Your task to perform on an android device: allow notifications from all sites in the chrome app Image 0: 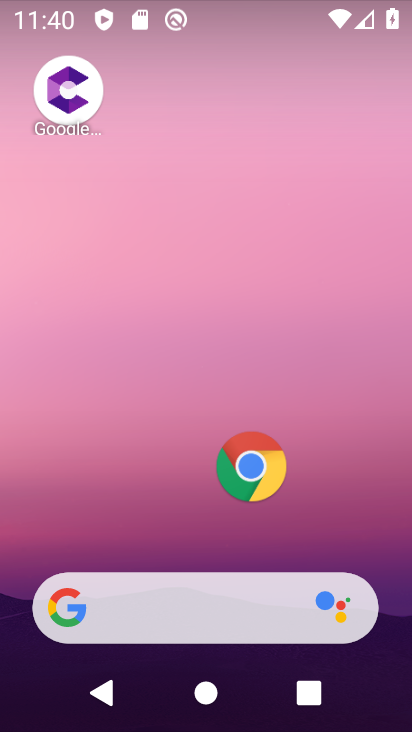
Step 0: click (235, 472)
Your task to perform on an android device: allow notifications from all sites in the chrome app Image 1: 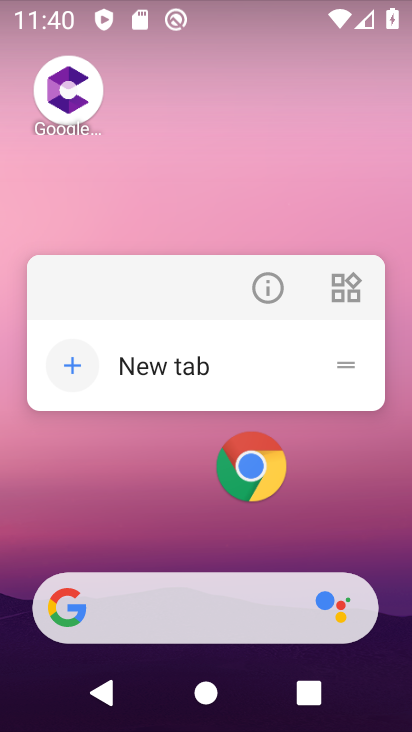
Step 1: click (256, 451)
Your task to perform on an android device: allow notifications from all sites in the chrome app Image 2: 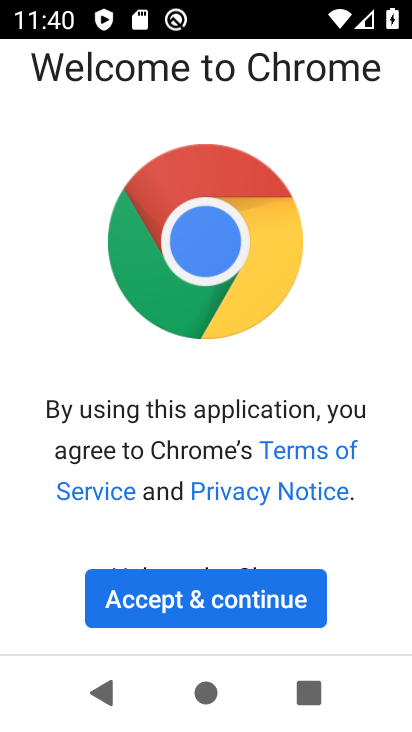
Step 2: click (232, 588)
Your task to perform on an android device: allow notifications from all sites in the chrome app Image 3: 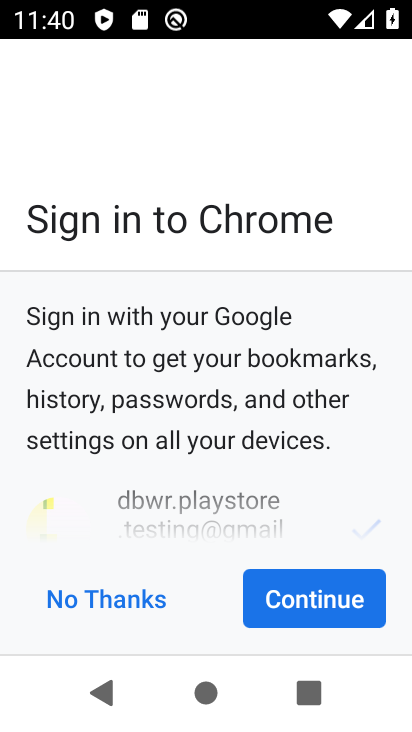
Step 3: click (264, 590)
Your task to perform on an android device: allow notifications from all sites in the chrome app Image 4: 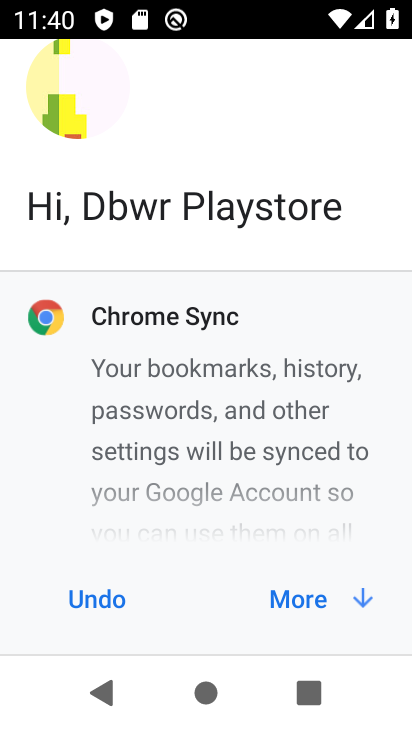
Step 4: click (264, 590)
Your task to perform on an android device: allow notifications from all sites in the chrome app Image 5: 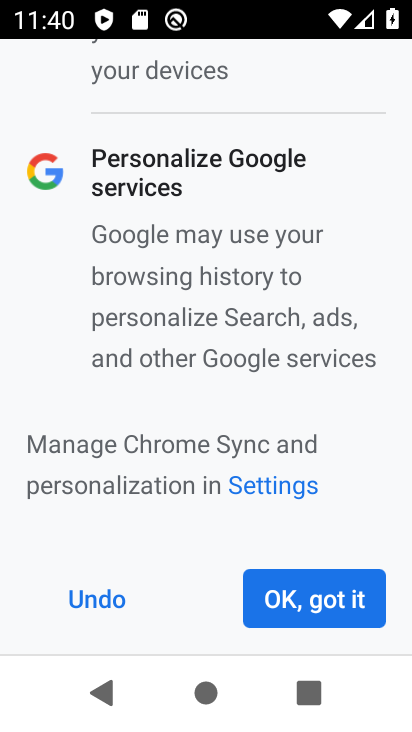
Step 5: click (264, 590)
Your task to perform on an android device: allow notifications from all sites in the chrome app Image 6: 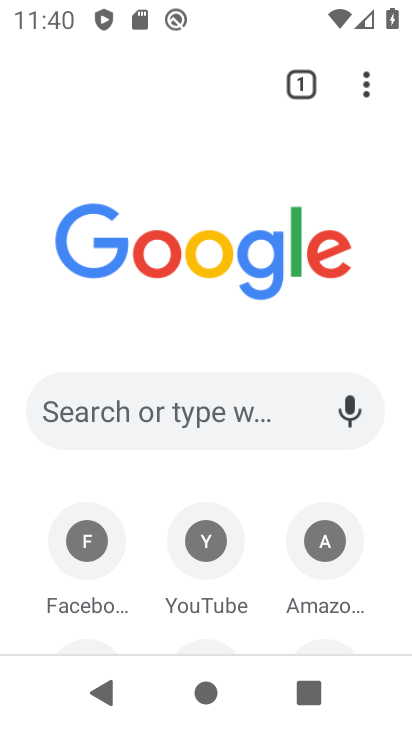
Step 6: click (364, 85)
Your task to perform on an android device: allow notifications from all sites in the chrome app Image 7: 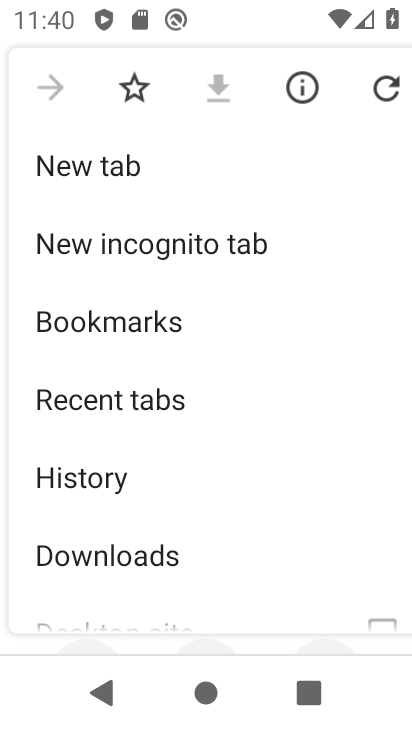
Step 7: drag from (186, 561) to (202, 232)
Your task to perform on an android device: allow notifications from all sites in the chrome app Image 8: 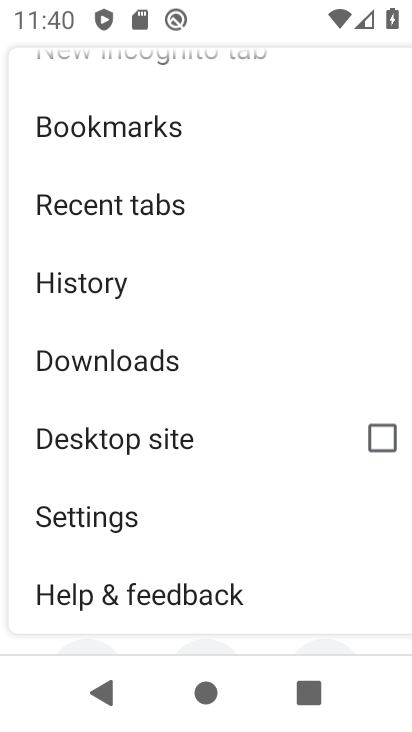
Step 8: click (124, 522)
Your task to perform on an android device: allow notifications from all sites in the chrome app Image 9: 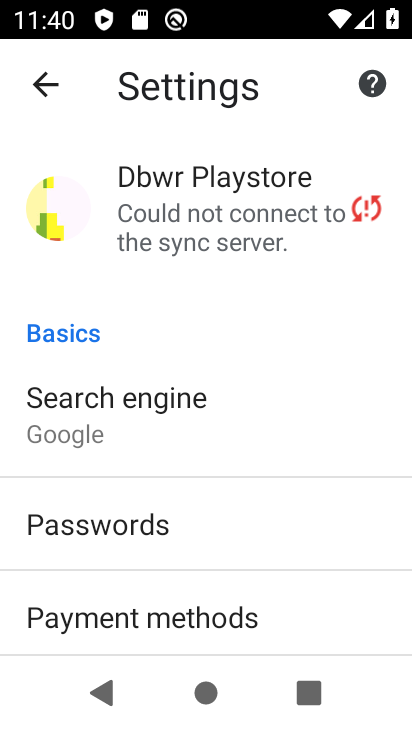
Step 9: drag from (213, 272) to (220, 207)
Your task to perform on an android device: allow notifications from all sites in the chrome app Image 10: 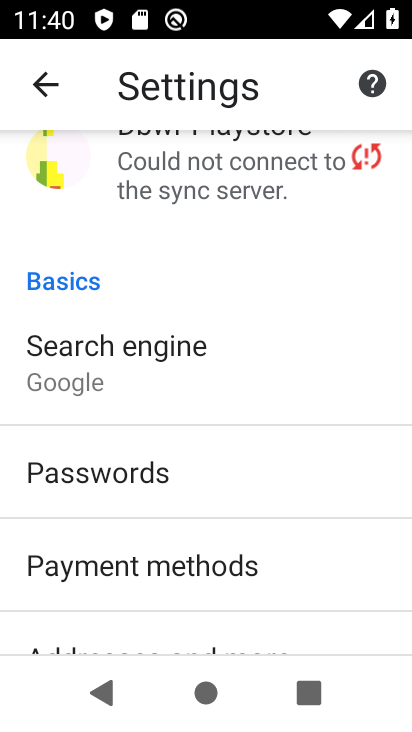
Step 10: drag from (220, 399) to (229, 255)
Your task to perform on an android device: allow notifications from all sites in the chrome app Image 11: 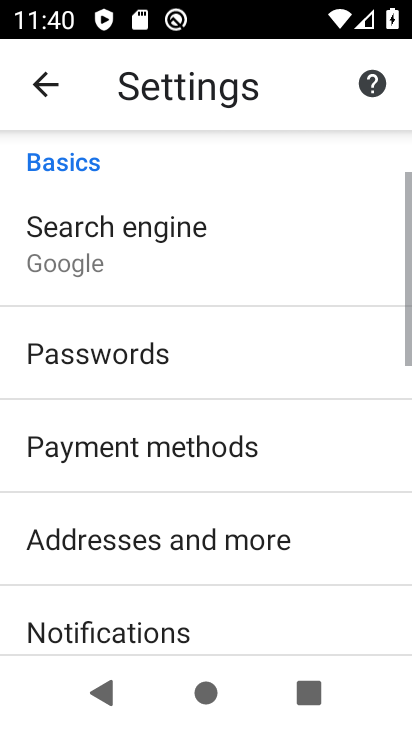
Step 11: drag from (234, 421) to (235, 324)
Your task to perform on an android device: allow notifications from all sites in the chrome app Image 12: 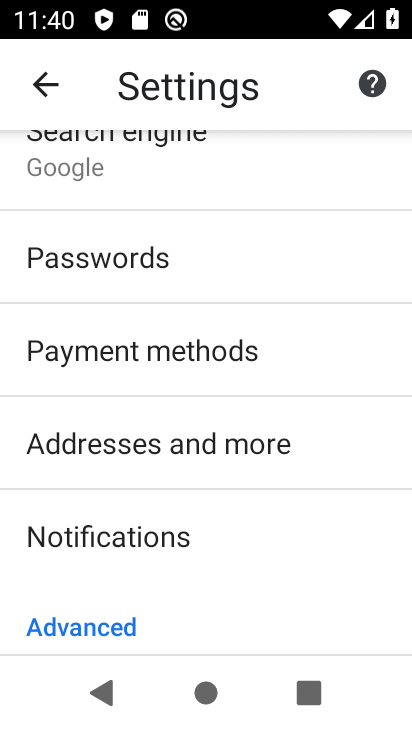
Step 12: click (150, 521)
Your task to perform on an android device: allow notifications from all sites in the chrome app Image 13: 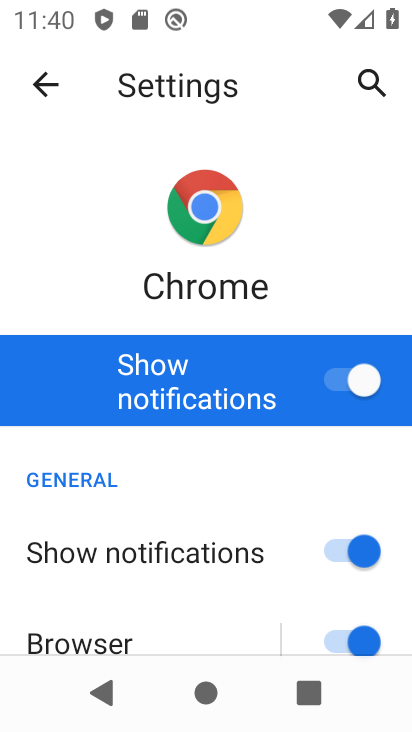
Step 13: click (168, 584)
Your task to perform on an android device: allow notifications from all sites in the chrome app Image 14: 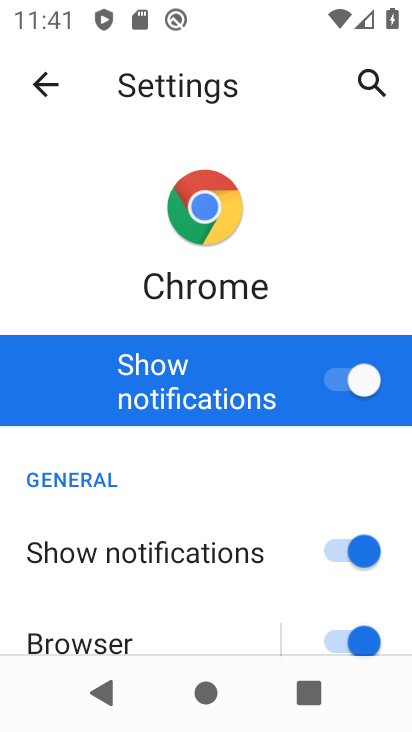
Step 14: click (51, 81)
Your task to perform on an android device: allow notifications from all sites in the chrome app Image 15: 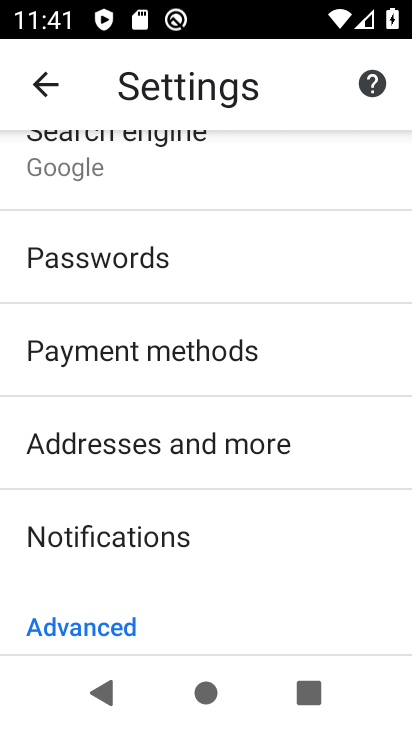
Step 15: drag from (222, 582) to (219, 343)
Your task to perform on an android device: allow notifications from all sites in the chrome app Image 16: 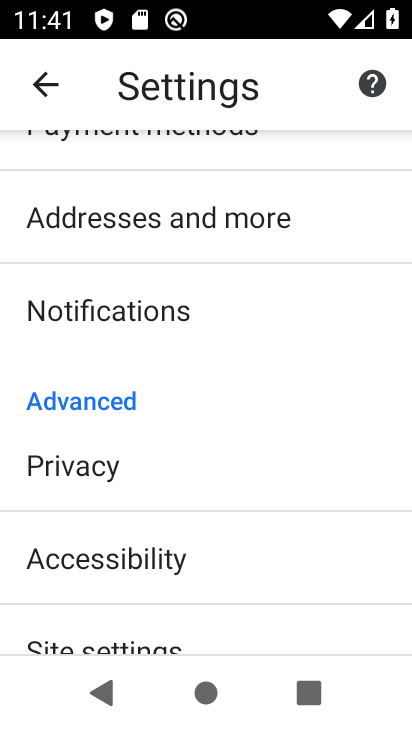
Step 16: drag from (236, 608) to (241, 360)
Your task to perform on an android device: allow notifications from all sites in the chrome app Image 17: 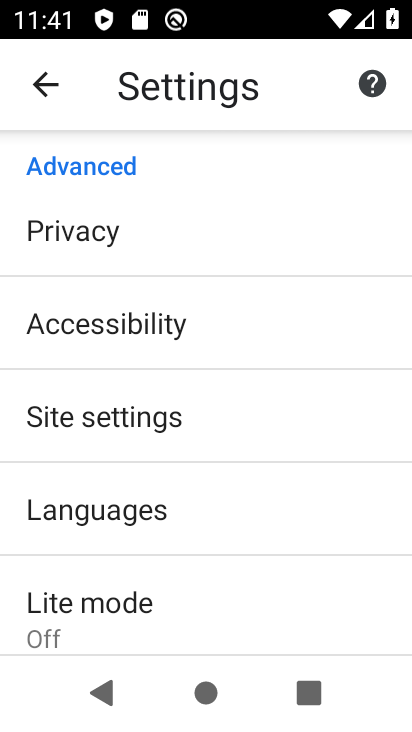
Step 17: click (216, 400)
Your task to perform on an android device: allow notifications from all sites in the chrome app Image 18: 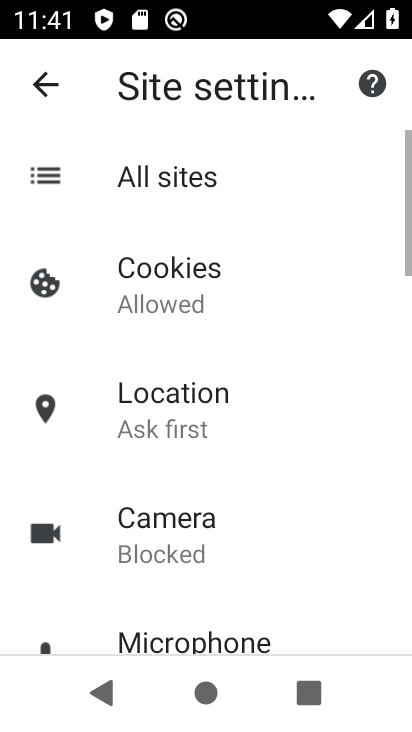
Step 18: click (163, 187)
Your task to perform on an android device: allow notifications from all sites in the chrome app Image 19: 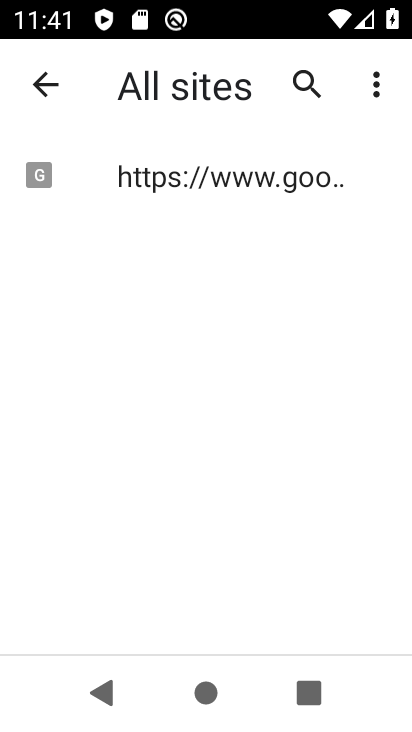
Step 19: click (174, 182)
Your task to perform on an android device: allow notifications from all sites in the chrome app Image 20: 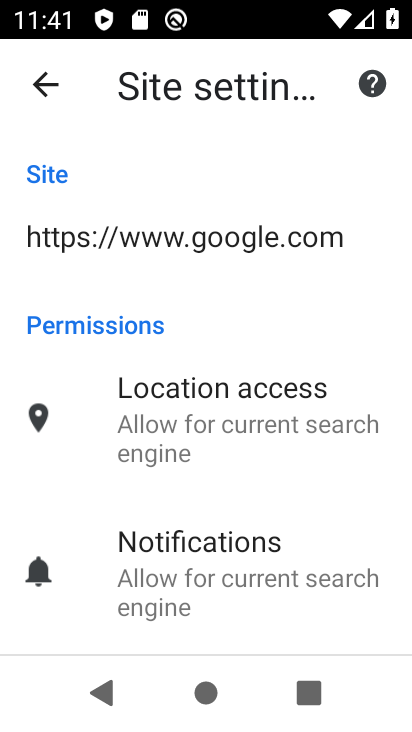
Step 20: click (220, 573)
Your task to perform on an android device: allow notifications from all sites in the chrome app Image 21: 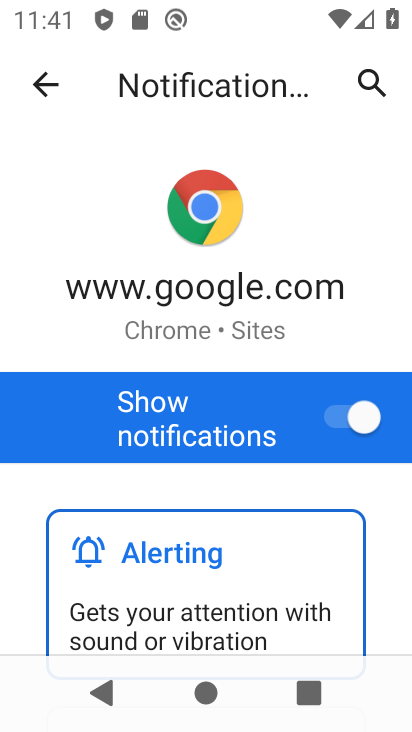
Step 21: task complete